Your task to perform on an android device: open app "Clock" Image 0: 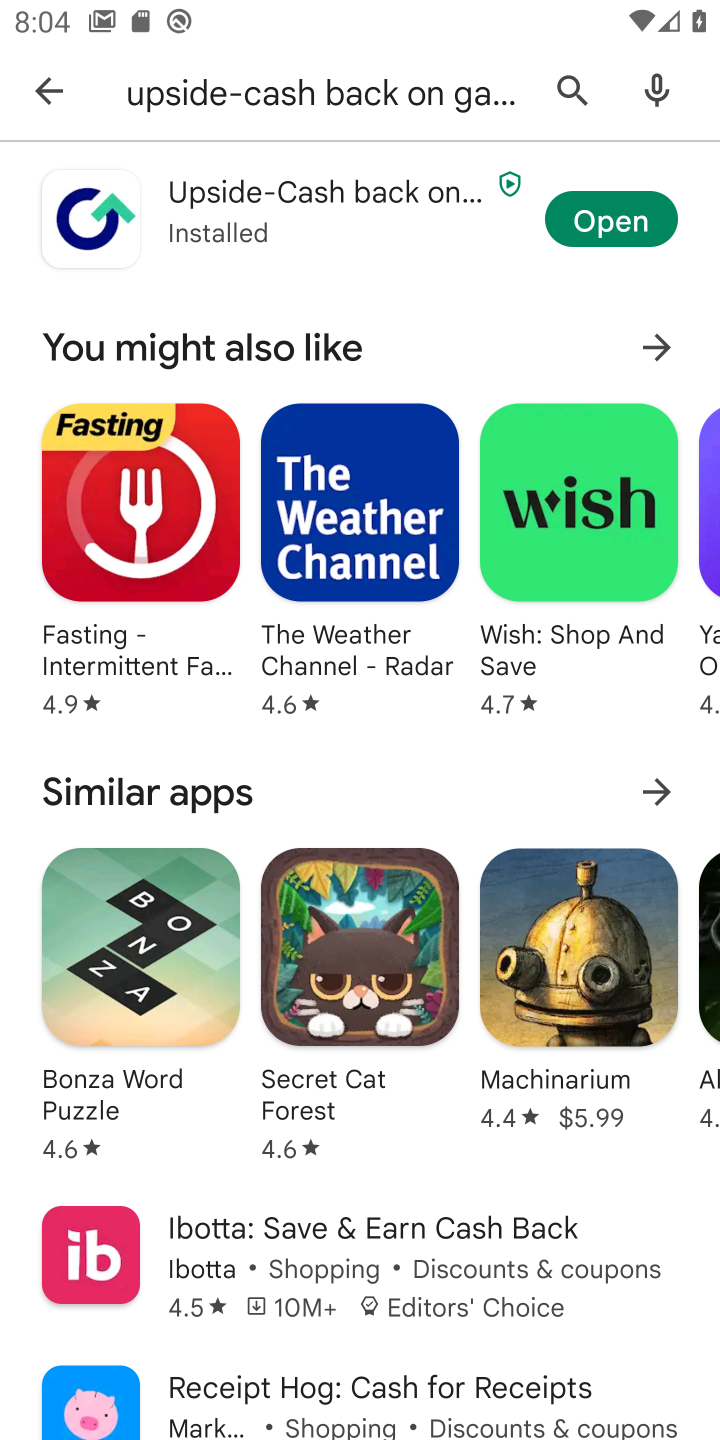
Step 0: press home button
Your task to perform on an android device: open app "Clock" Image 1: 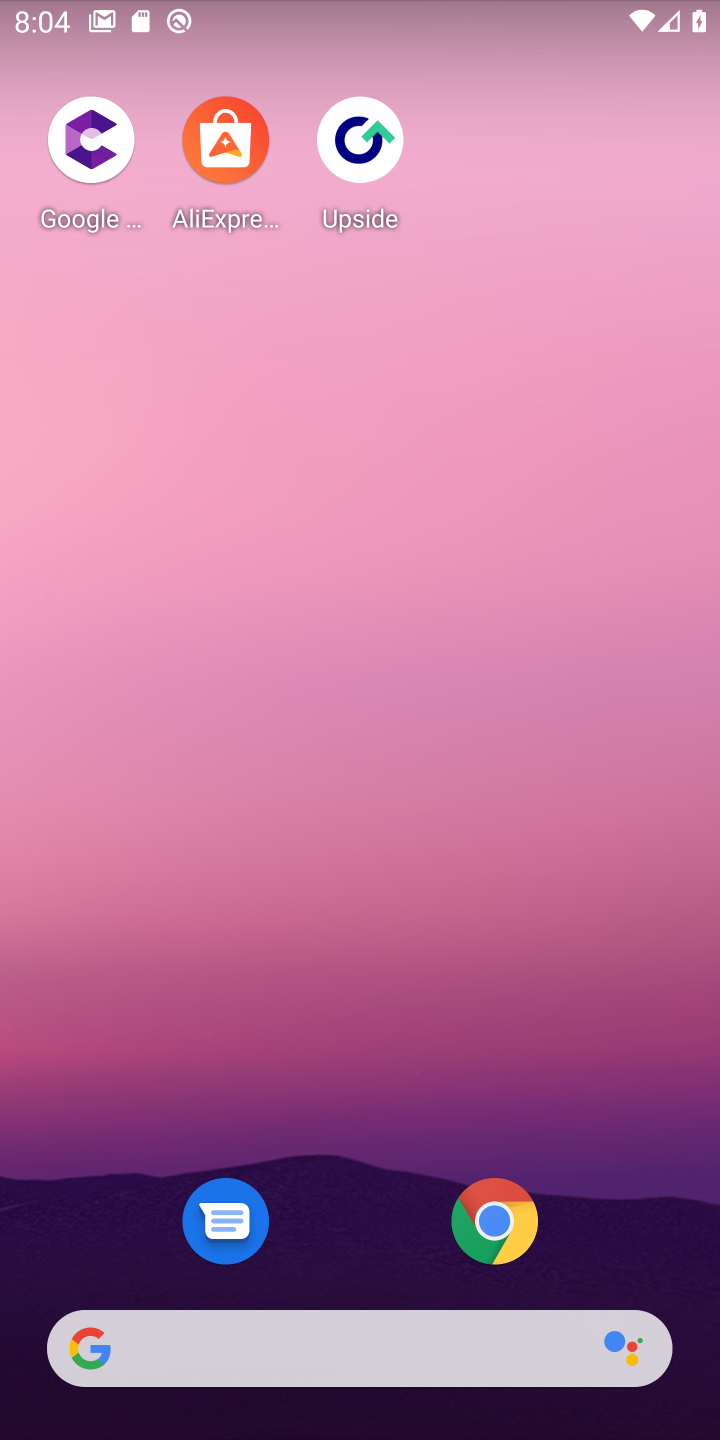
Step 1: drag from (368, 1171) to (344, 97)
Your task to perform on an android device: open app "Clock" Image 2: 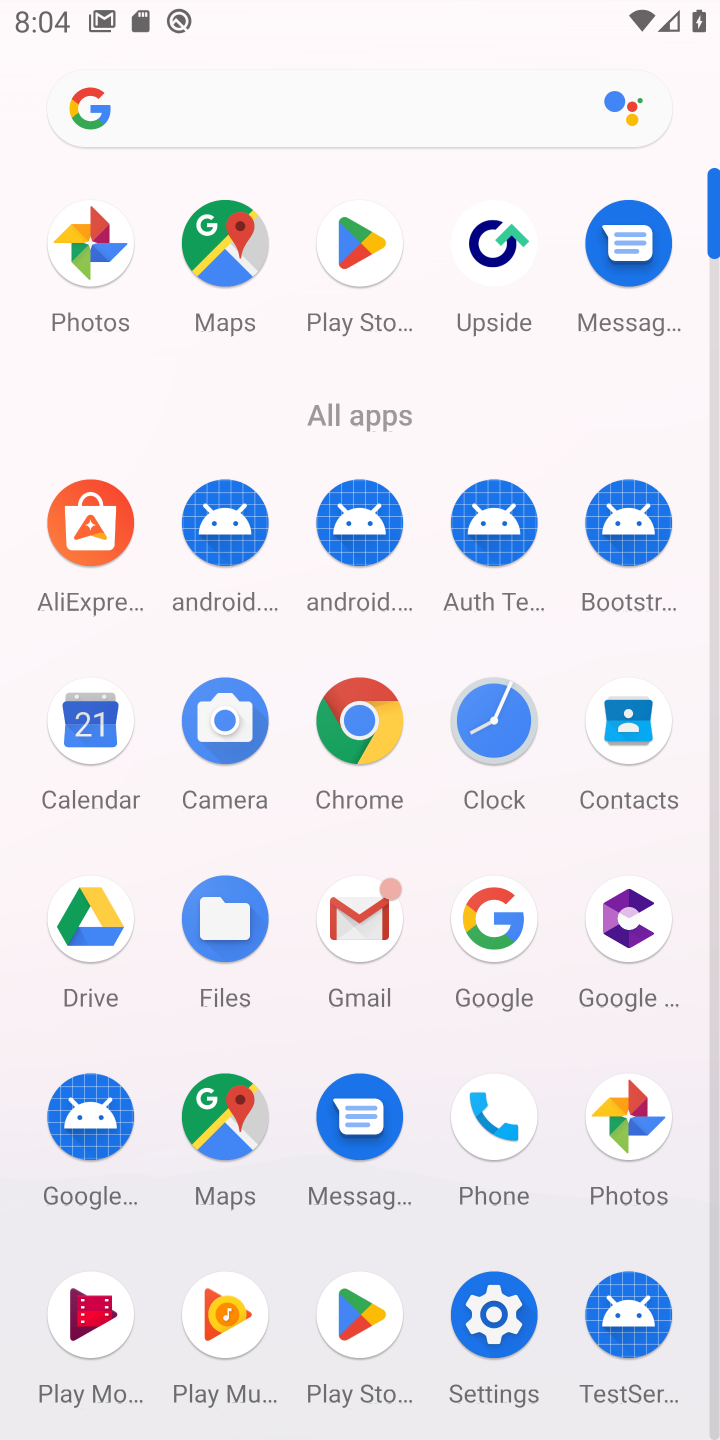
Step 2: click (495, 714)
Your task to perform on an android device: open app "Clock" Image 3: 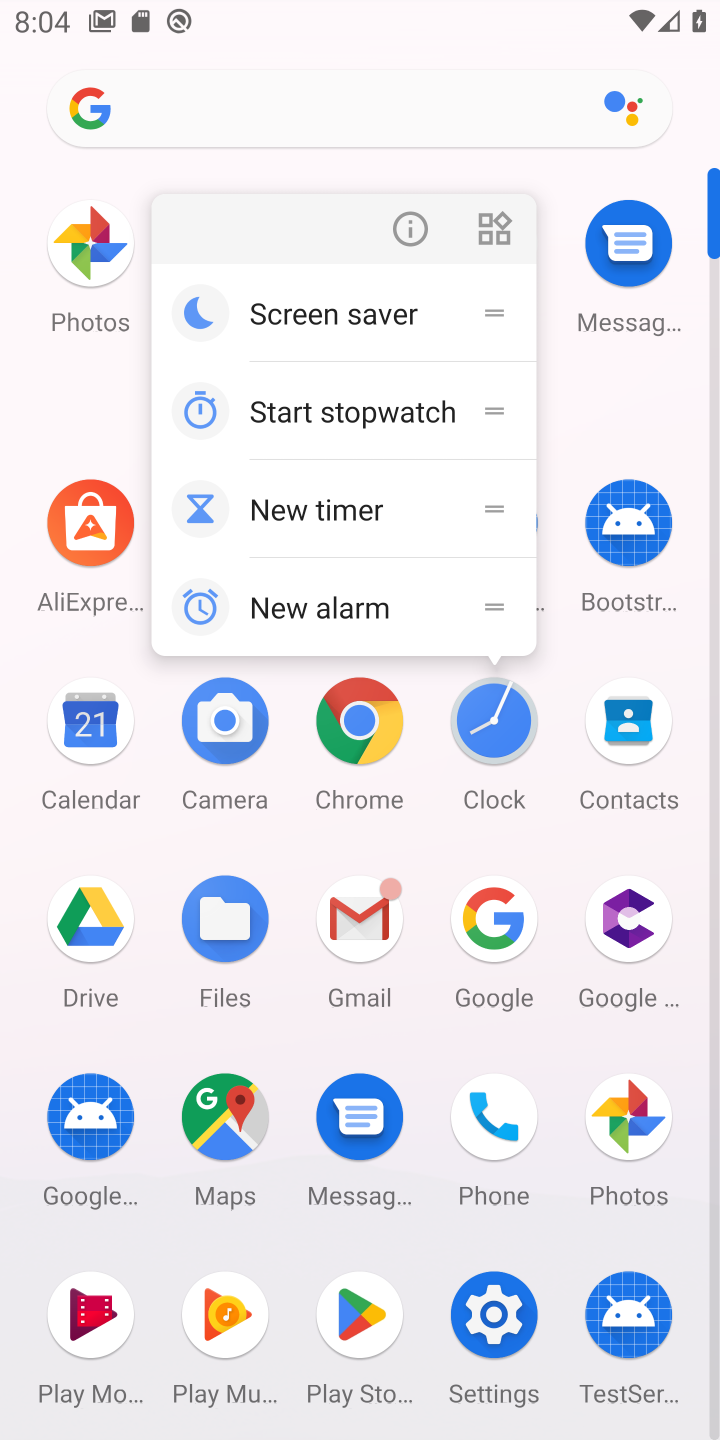
Step 3: click (495, 714)
Your task to perform on an android device: open app "Clock" Image 4: 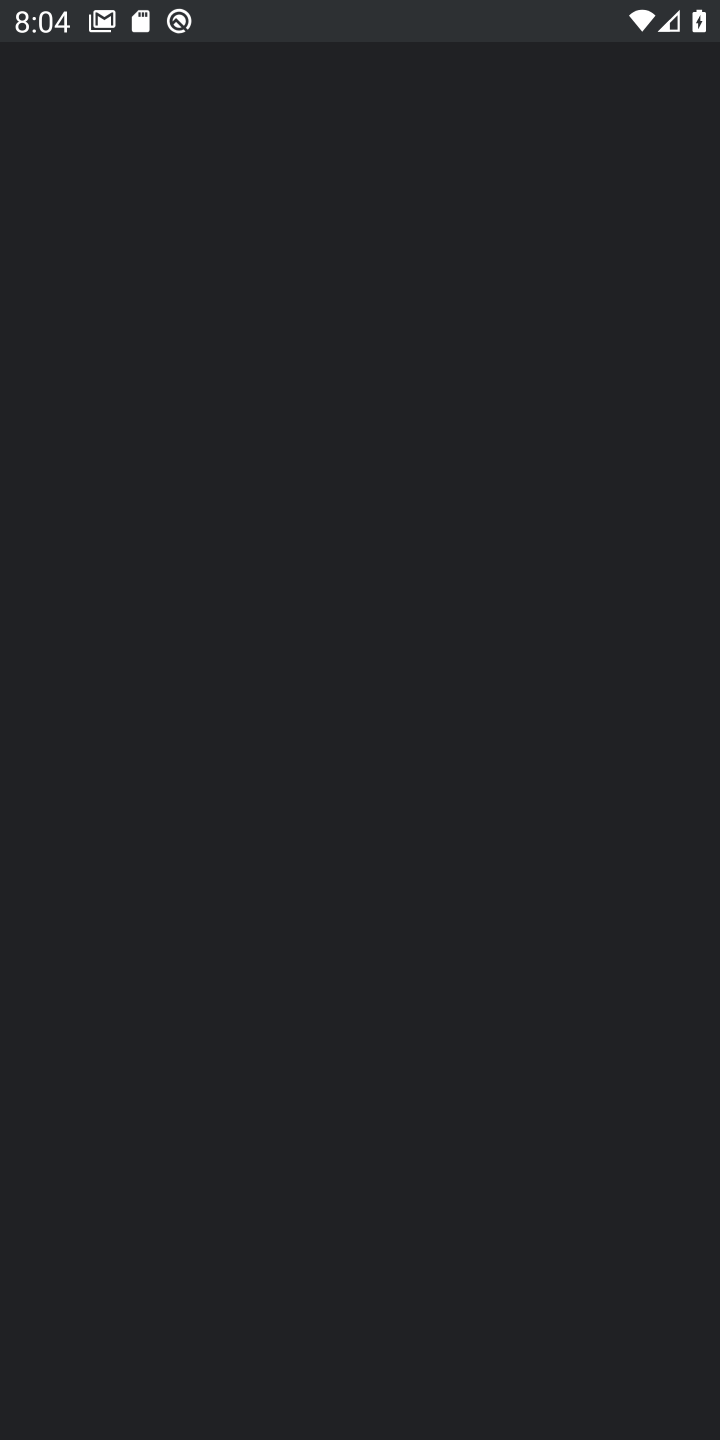
Step 4: click (493, 713)
Your task to perform on an android device: open app "Clock" Image 5: 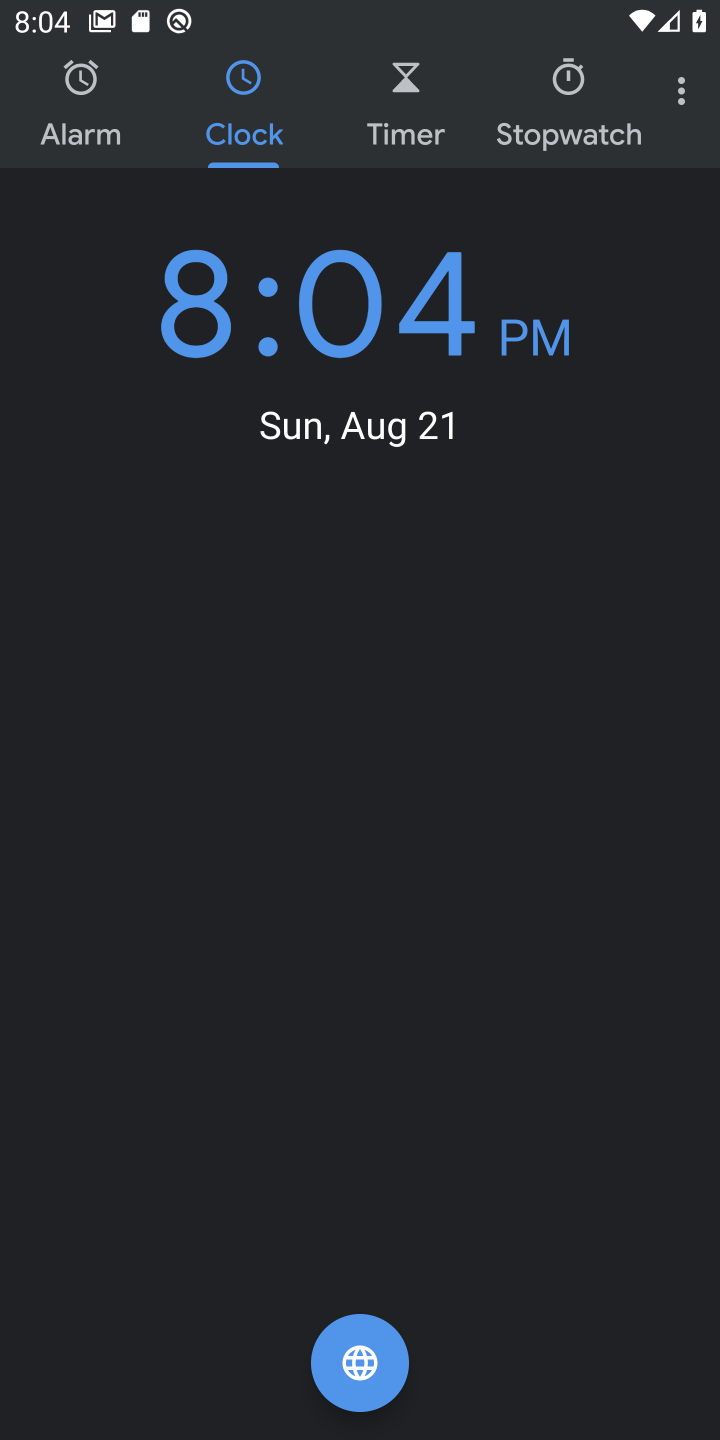
Step 5: task complete